Your task to perform on an android device: Open calendar and show me the fourth week of next month Image 0: 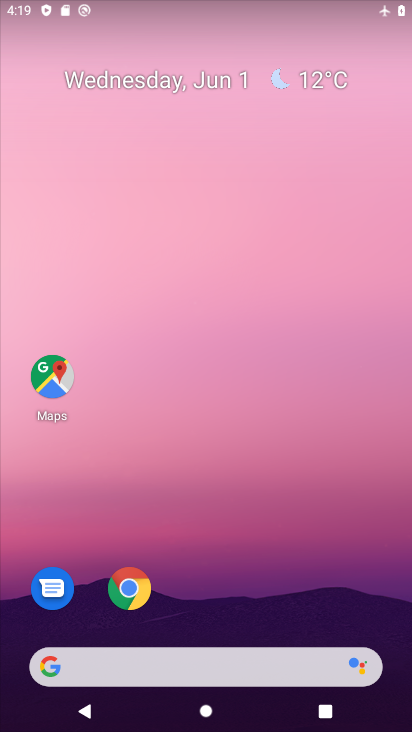
Step 0: drag from (338, 602) to (322, 65)
Your task to perform on an android device: Open calendar and show me the fourth week of next month Image 1: 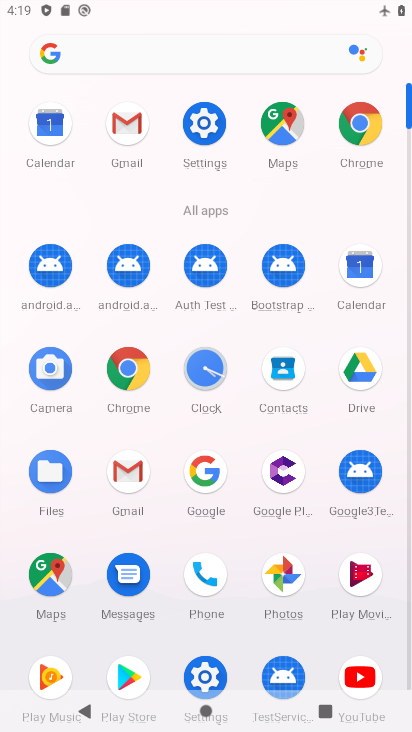
Step 1: click (360, 277)
Your task to perform on an android device: Open calendar and show me the fourth week of next month Image 2: 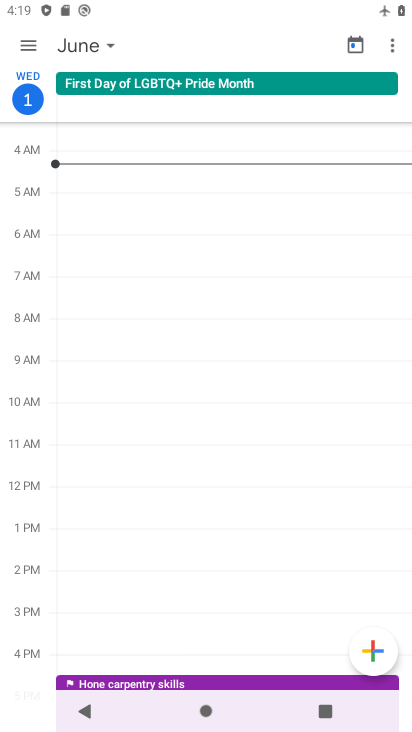
Step 2: click (90, 49)
Your task to perform on an android device: Open calendar and show me the fourth week of next month Image 3: 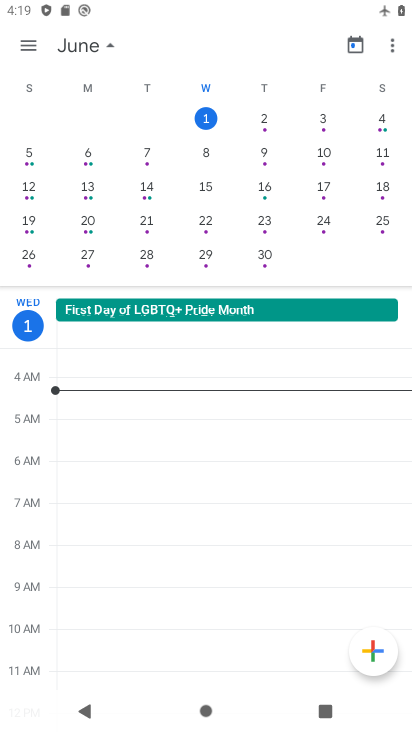
Step 3: drag from (329, 260) to (66, 177)
Your task to perform on an android device: Open calendar and show me the fourth week of next month Image 4: 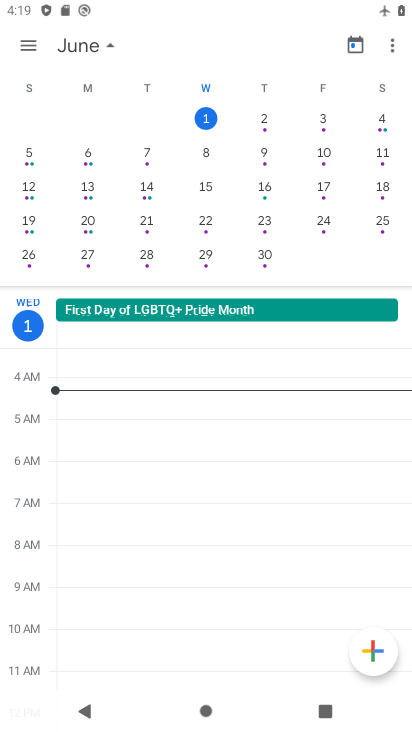
Step 4: drag from (304, 216) to (15, 63)
Your task to perform on an android device: Open calendar and show me the fourth week of next month Image 5: 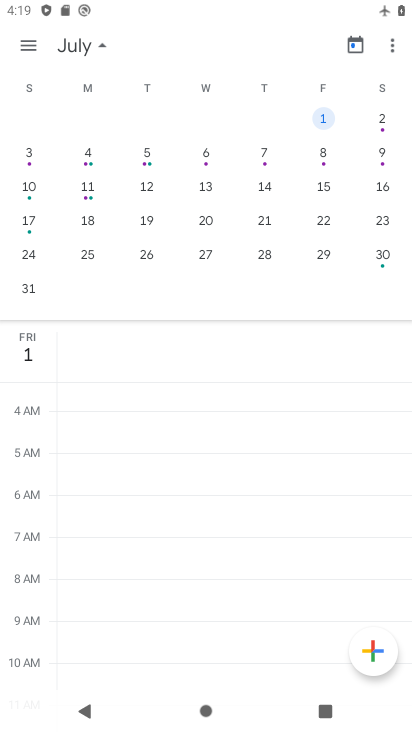
Step 5: click (274, 258)
Your task to perform on an android device: Open calendar and show me the fourth week of next month Image 6: 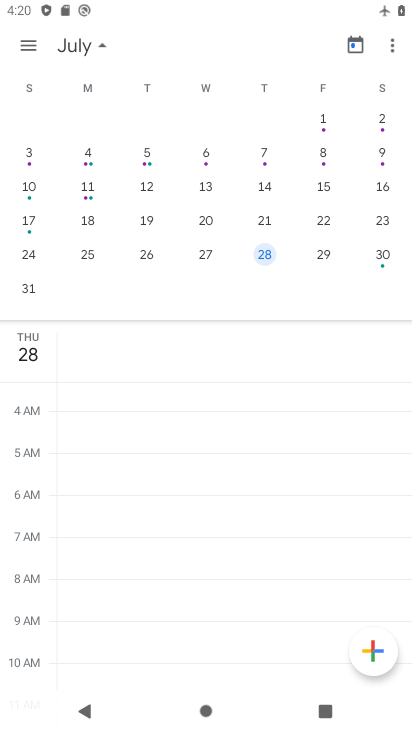
Step 6: task complete